Your task to perform on an android device: move an email to a new category in the gmail app Image 0: 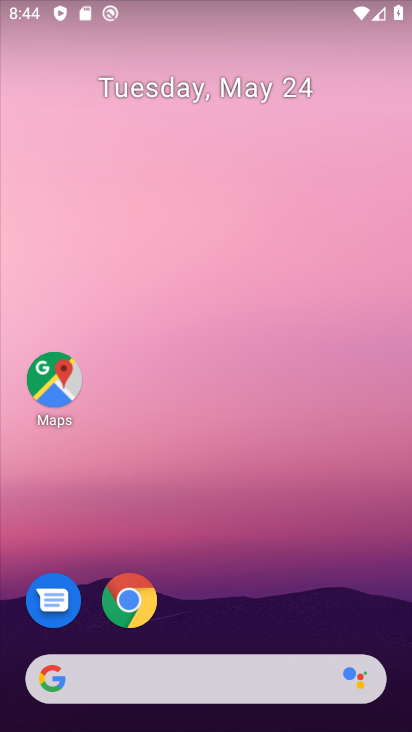
Step 0: drag from (206, 624) to (315, 4)
Your task to perform on an android device: move an email to a new category in the gmail app Image 1: 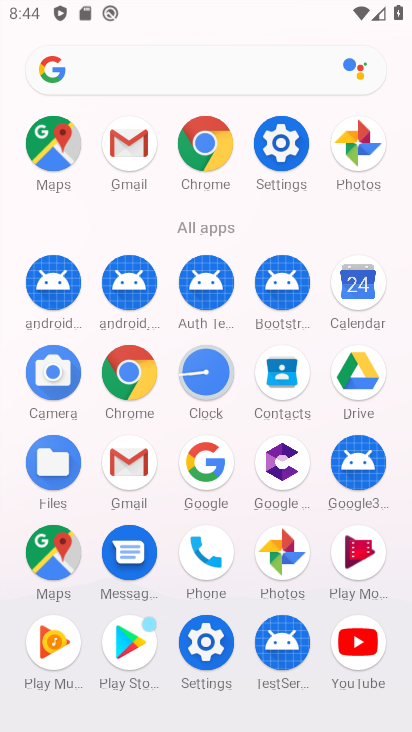
Step 1: click (126, 160)
Your task to perform on an android device: move an email to a new category in the gmail app Image 2: 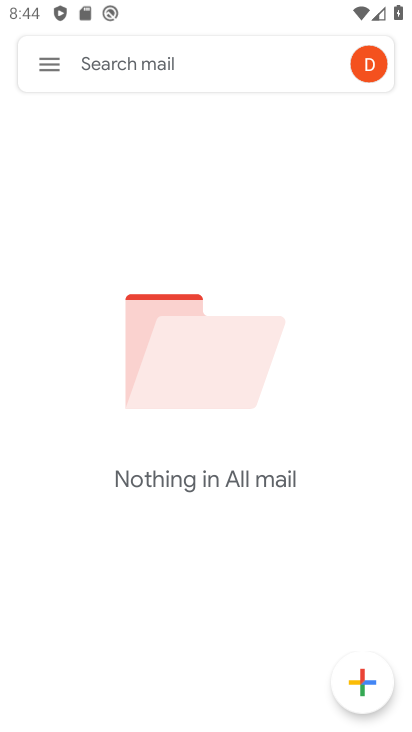
Step 2: task complete